Your task to perform on an android device: check android version Image 0: 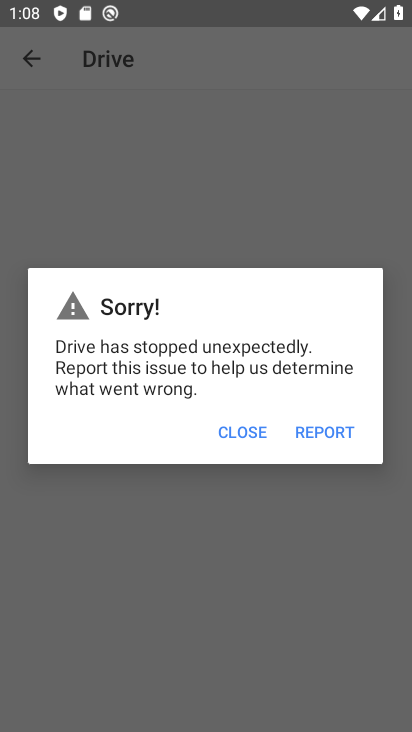
Step 0: press home button
Your task to perform on an android device: check android version Image 1: 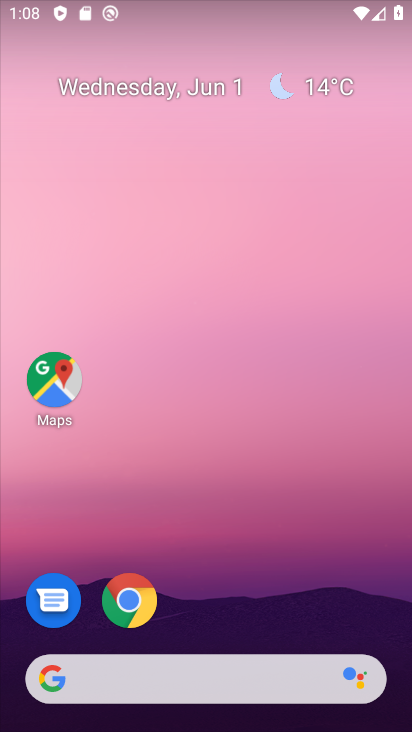
Step 1: drag from (212, 629) to (254, 153)
Your task to perform on an android device: check android version Image 2: 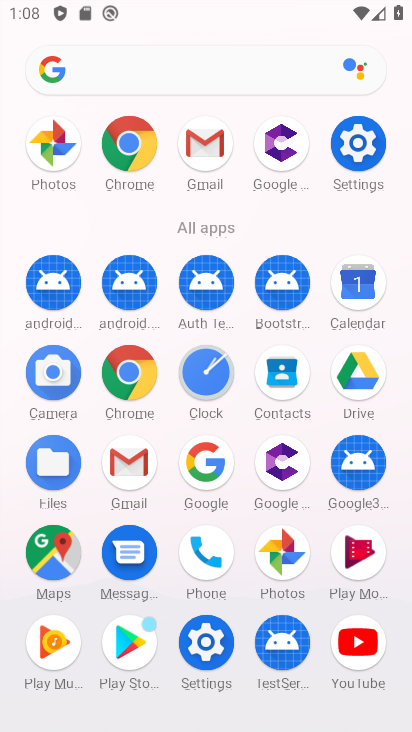
Step 2: click (203, 640)
Your task to perform on an android device: check android version Image 3: 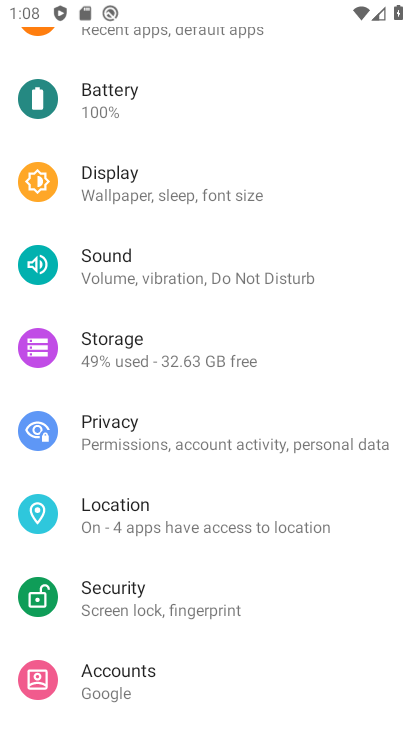
Step 3: drag from (132, 631) to (225, 255)
Your task to perform on an android device: check android version Image 4: 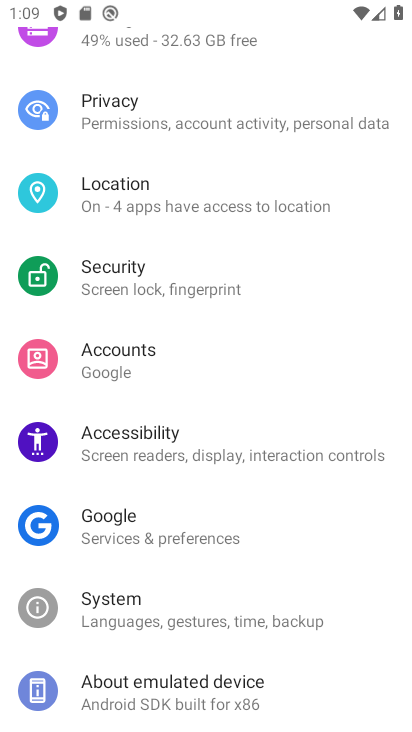
Step 4: drag from (147, 639) to (299, 204)
Your task to perform on an android device: check android version Image 5: 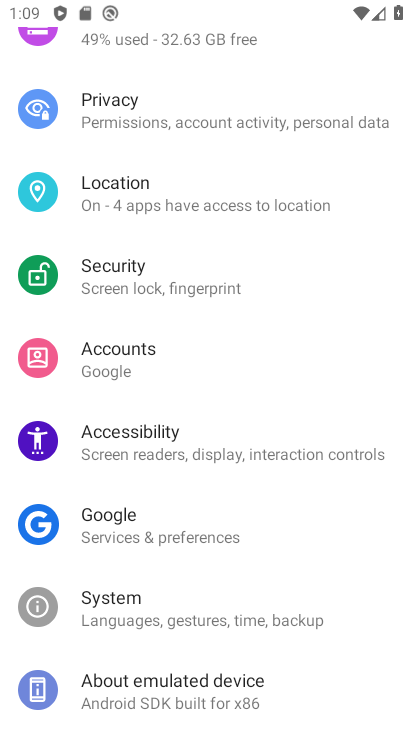
Step 5: click (204, 691)
Your task to perform on an android device: check android version Image 6: 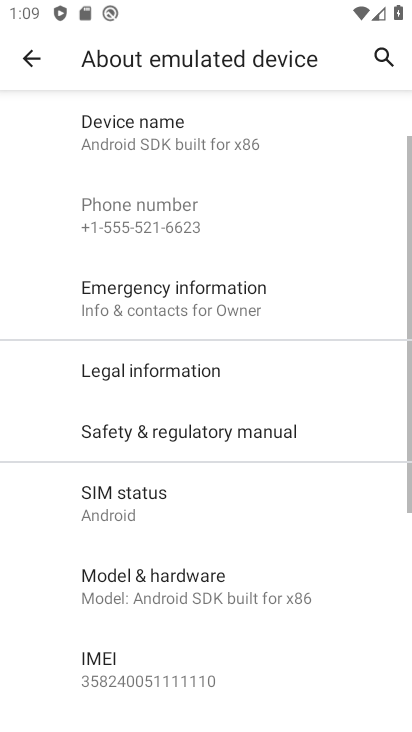
Step 6: drag from (196, 653) to (270, 466)
Your task to perform on an android device: check android version Image 7: 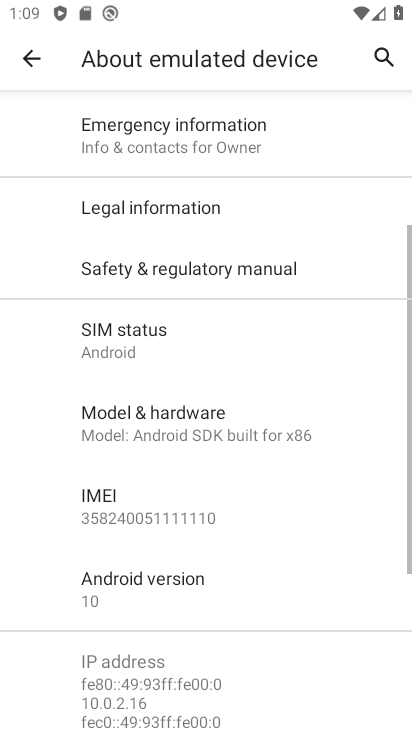
Step 7: click (216, 600)
Your task to perform on an android device: check android version Image 8: 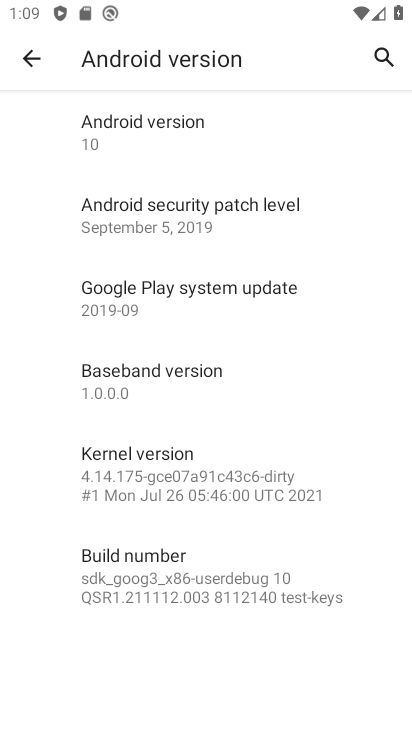
Step 8: task complete